Your task to perform on an android device: Open the downloads Image 0: 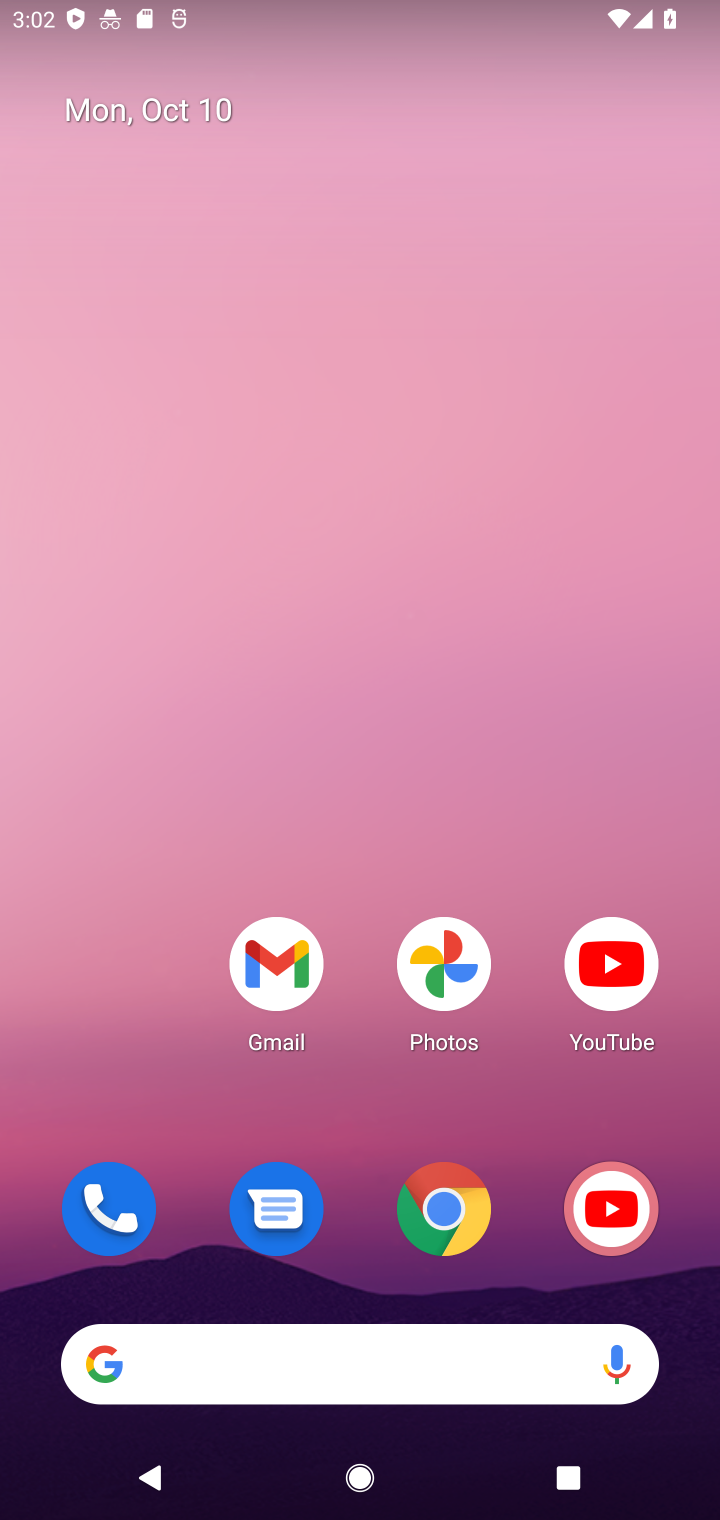
Step 0: drag from (327, 1380) to (298, 258)
Your task to perform on an android device: Open the downloads Image 1: 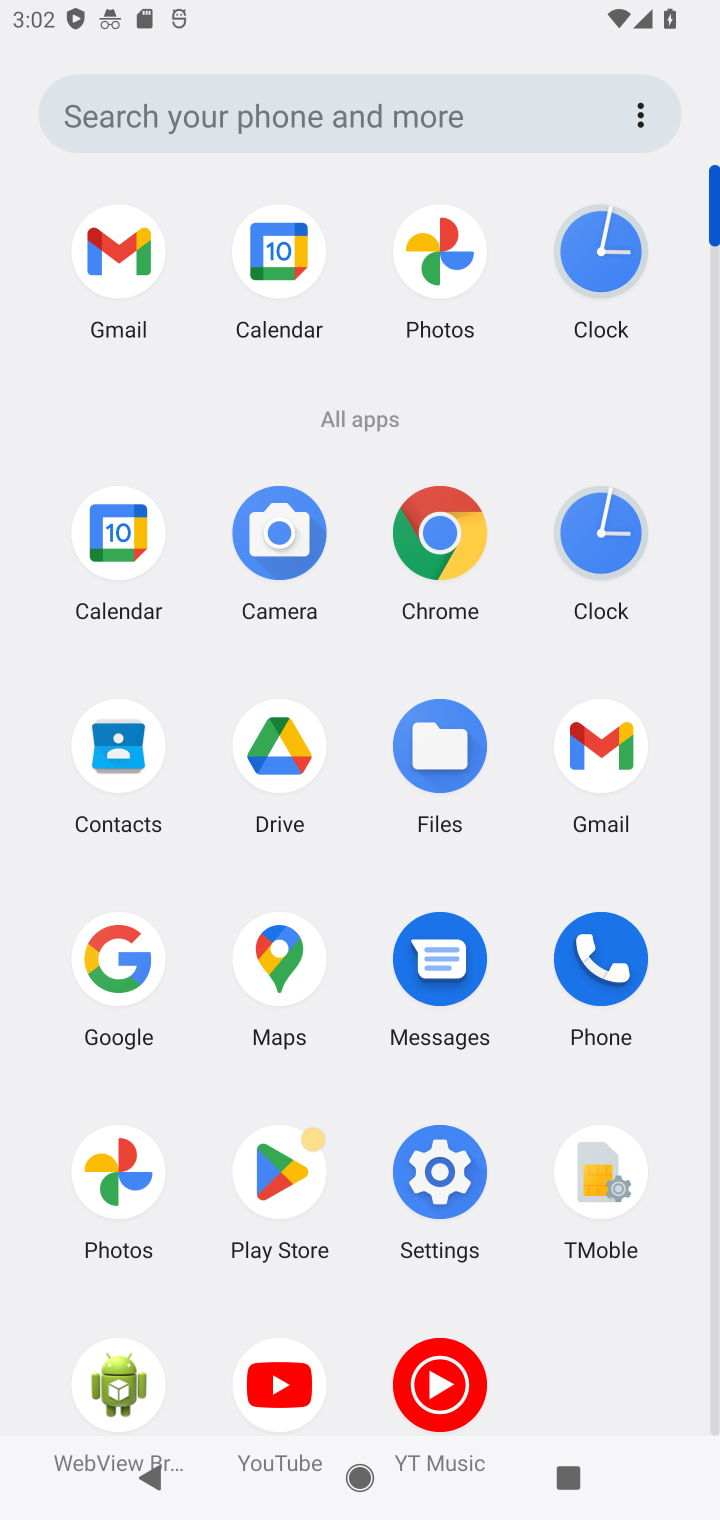
Step 1: click (444, 732)
Your task to perform on an android device: Open the downloads Image 2: 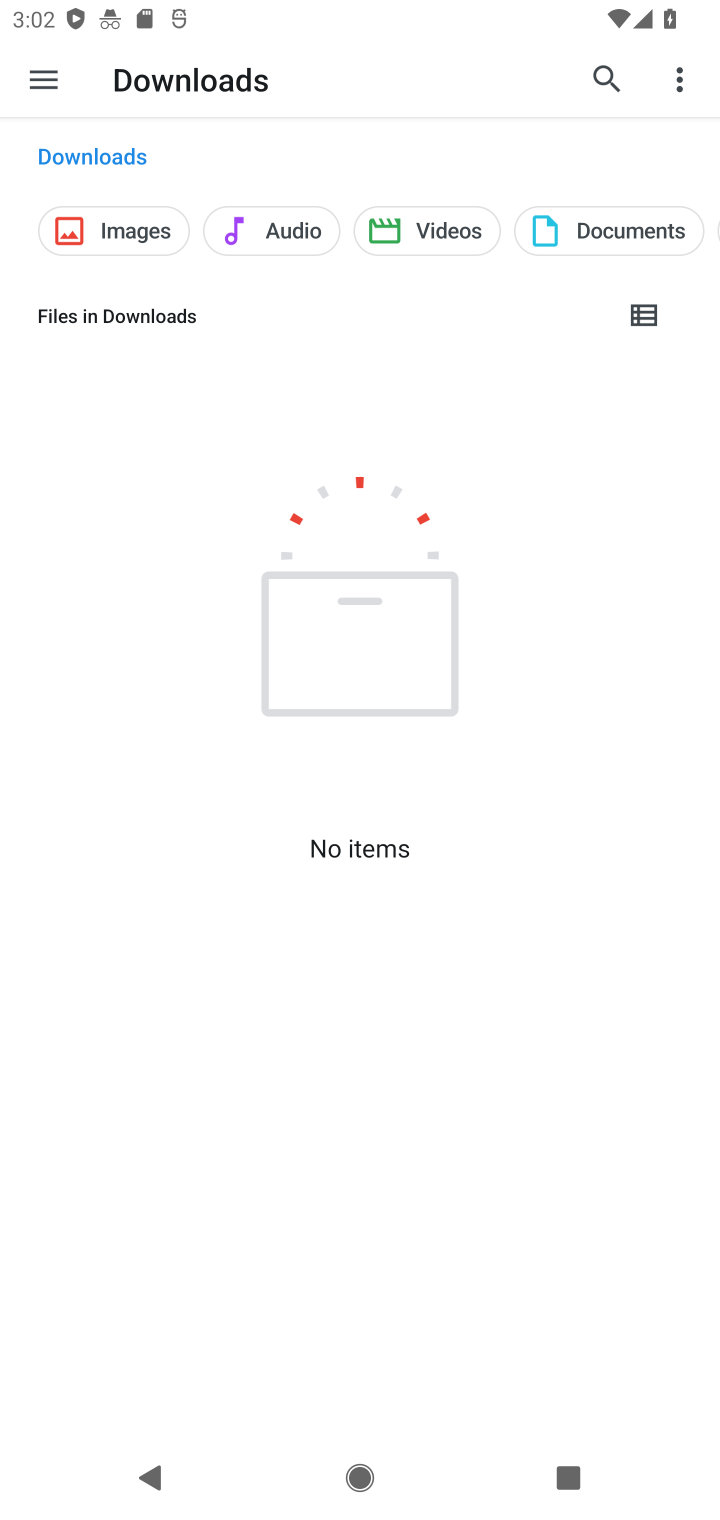
Step 2: task complete